Your task to perform on an android device: set an alarm Image 0: 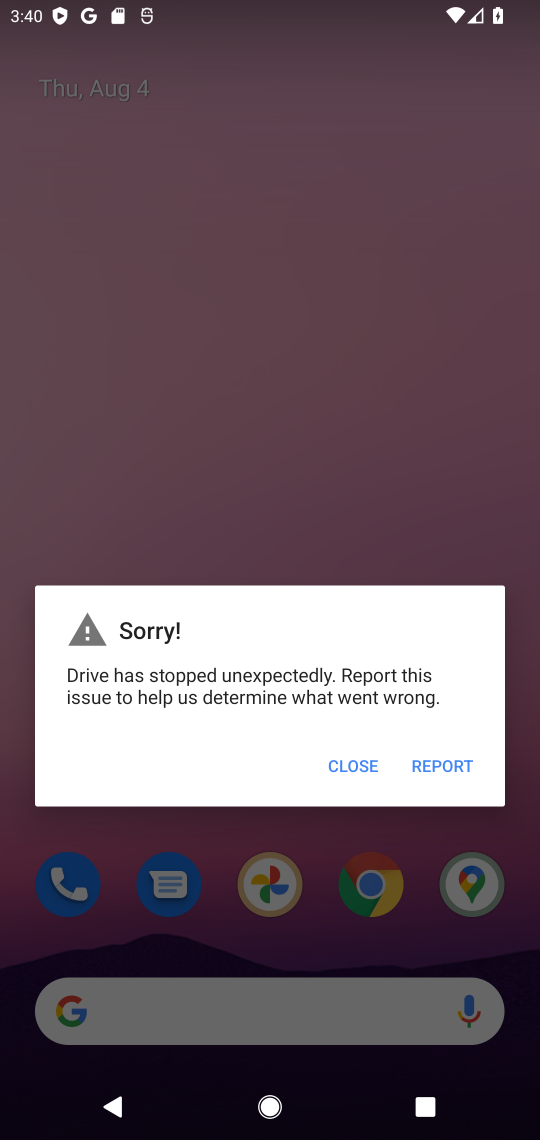
Step 0: drag from (238, 951) to (386, 299)
Your task to perform on an android device: set an alarm Image 1: 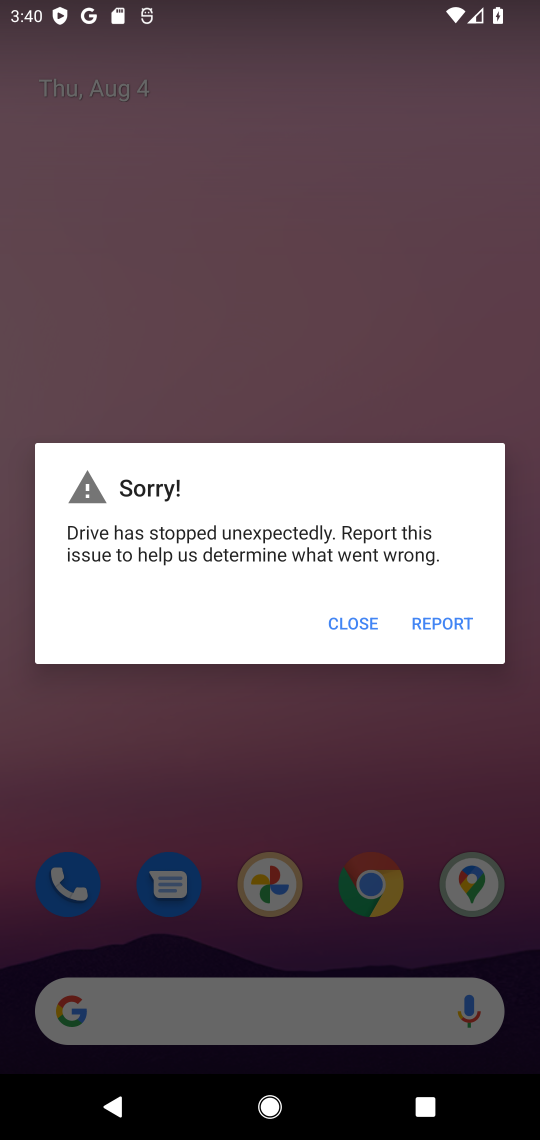
Step 1: click (335, 622)
Your task to perform on an android device: set an alarm Image 2: 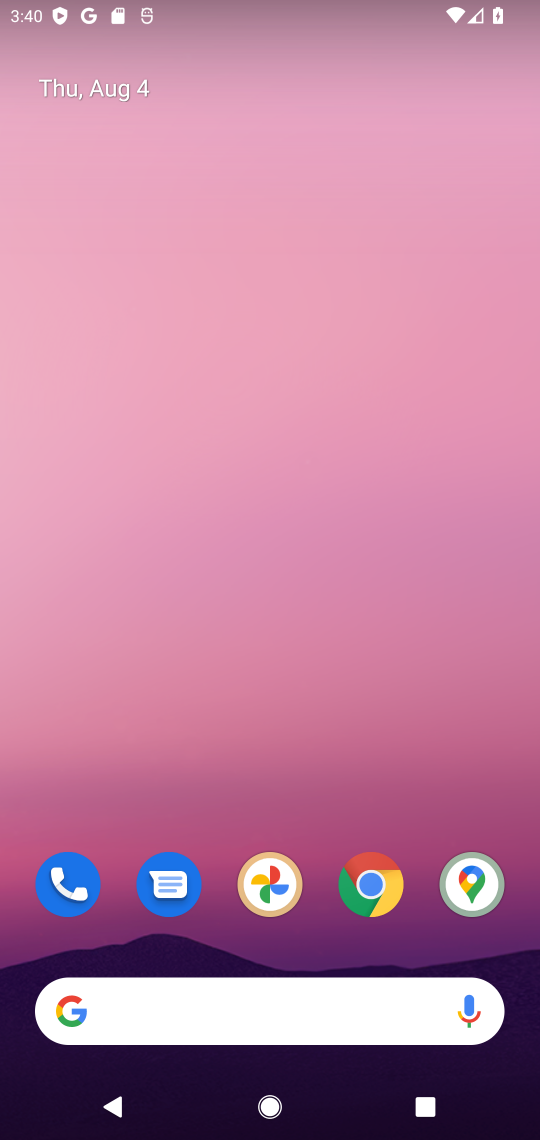
Step 2: drag from (314, 955) to (373, 401)
Your task to perform on an android device: set an alarm Image 3: 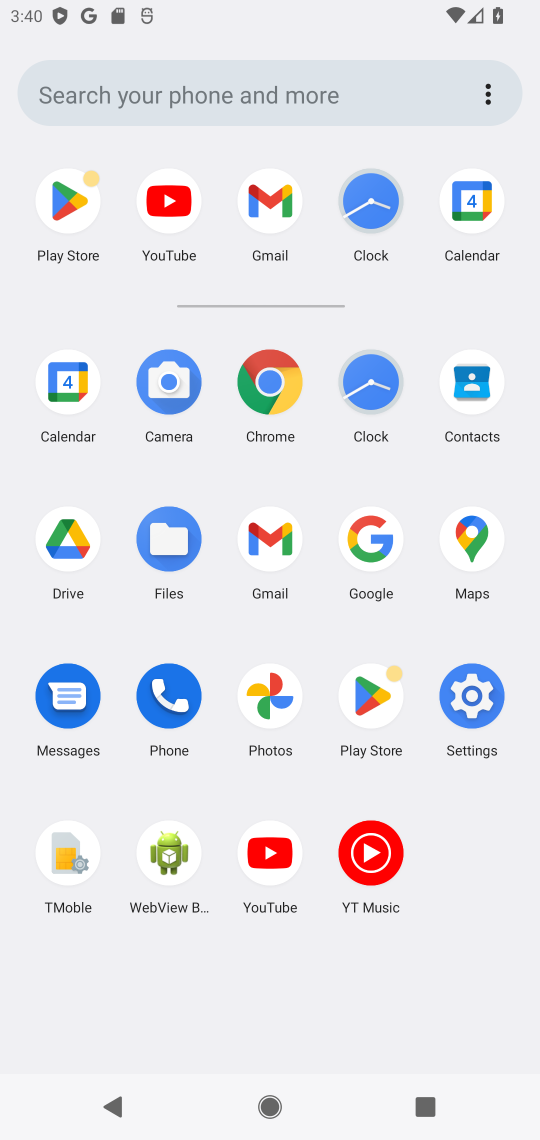
Step 3: click (366, 392)
Your task to perform on an android device: set an alarm Image 4: 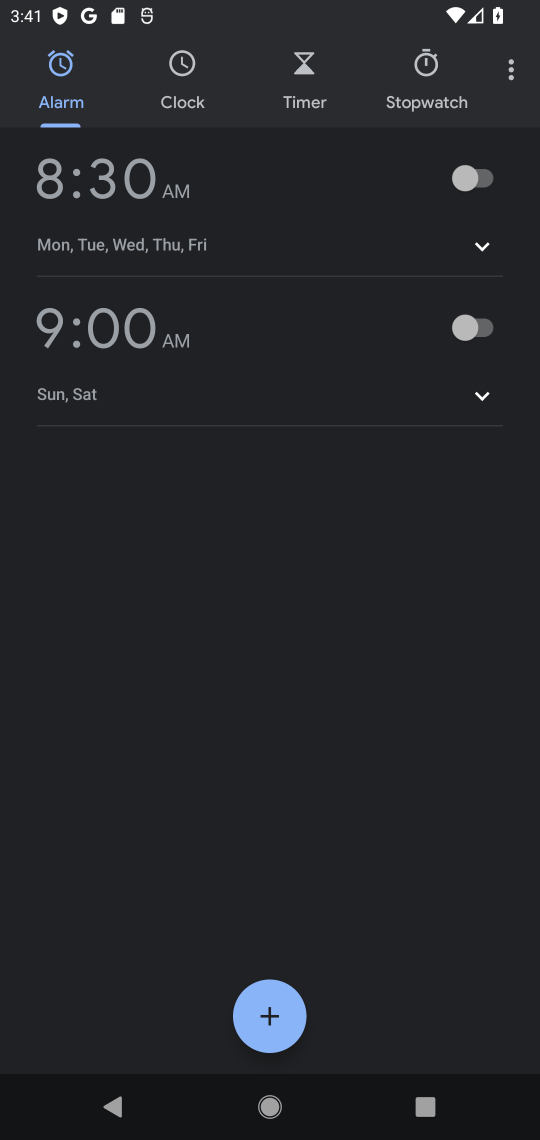
Step 4: click (466, 175)
Your task to perform on an android device: set an alarm Image 5: 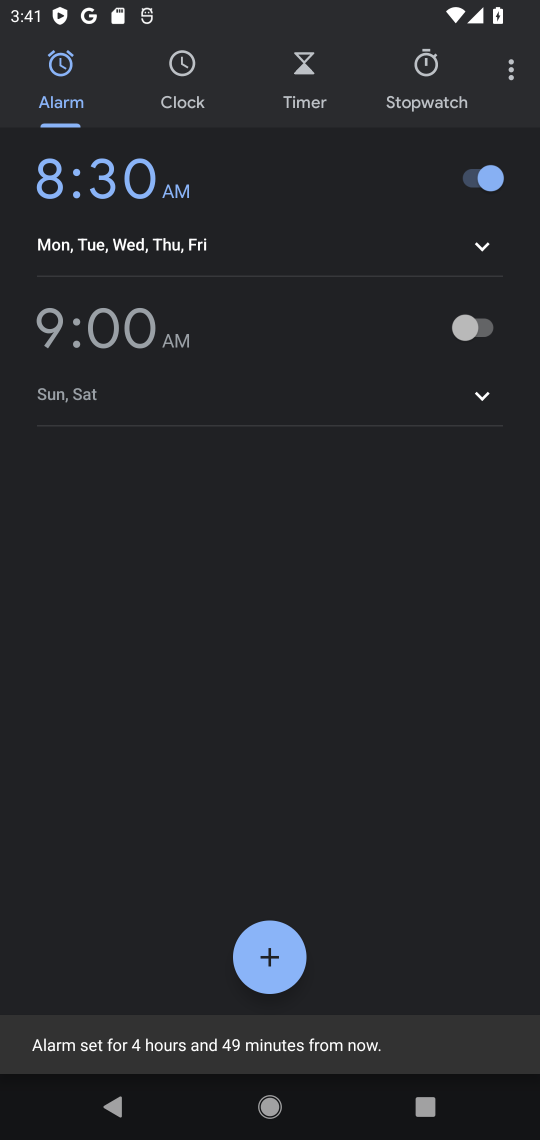
Step 5: task complete